Your task to perform on an android device: change the clock display to analog Image 0: 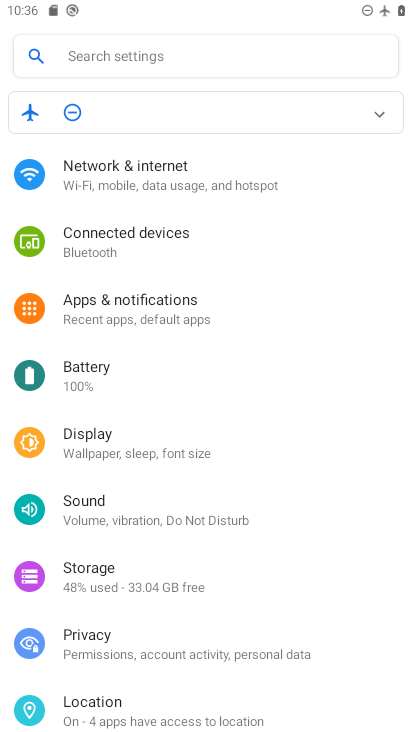
Step 0: press home button
Your task to perform on an android device: change the clock display to analog Image 1: 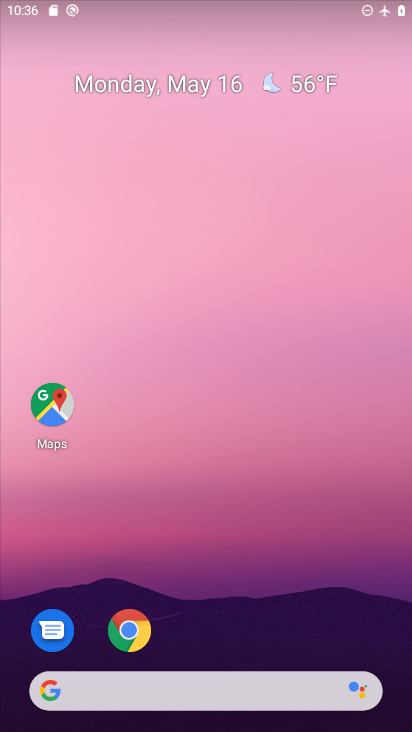
Step 1: drag from (244, 579) to (228, 85)
Your task to perform on an android device: change the clock display to analog Image 2: 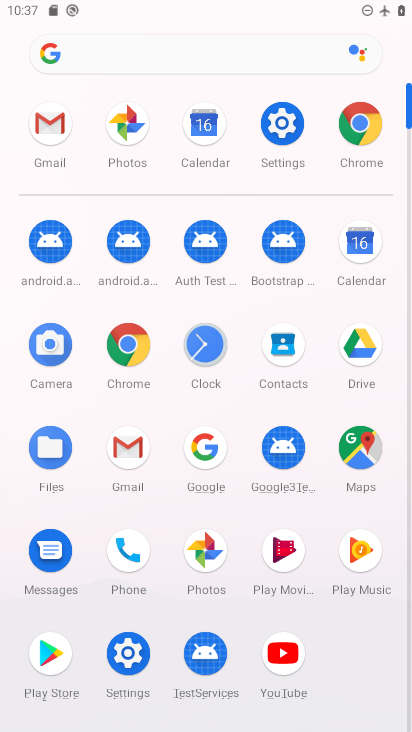
Step 2: click (207, 333)
Your task to perform on an android device: change the clock display to analog Image 3: 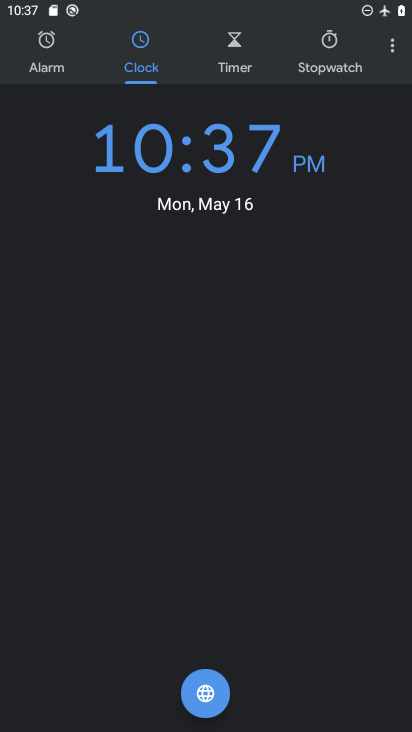
Step 3: click (385, 50)
Your task to perform on an android device: change the clock display to analog Image 4: 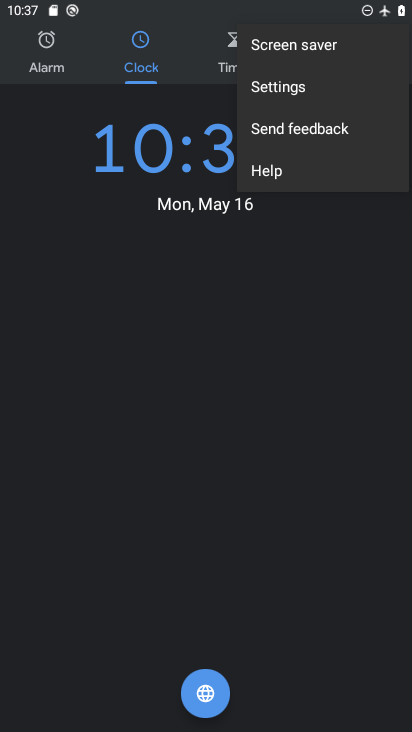
Step 4: click (340, 87)
Your task to perform on an android device: change the clock display to analog Image 5: 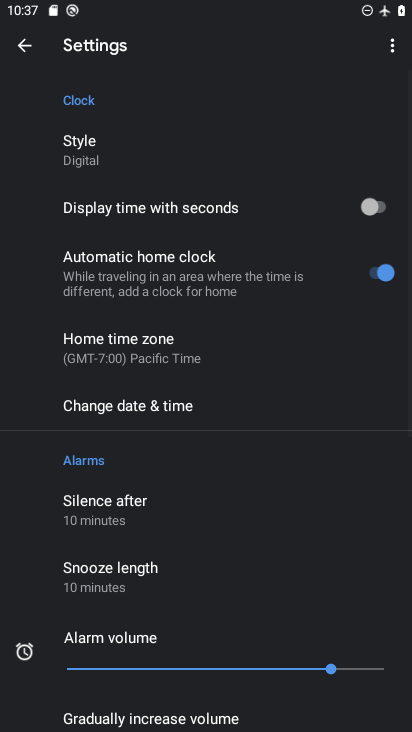
Step 5: click (117, 150)
Your task to perform on an android device: change the clock display to analog Image 6: 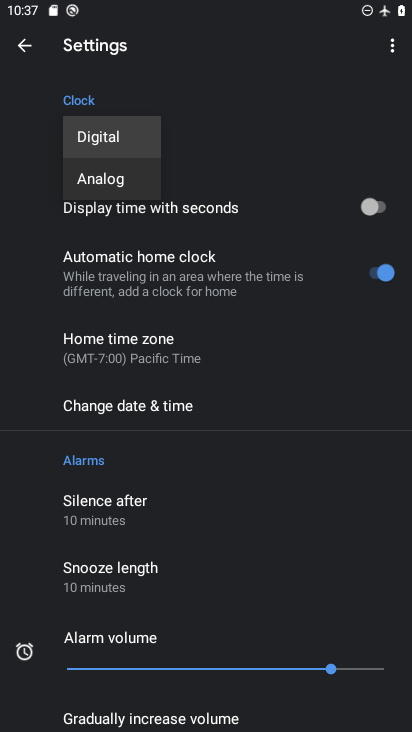
Step 6: click (112, 169)
Your task to perform on an android device: change the clock display to analog Image 7: 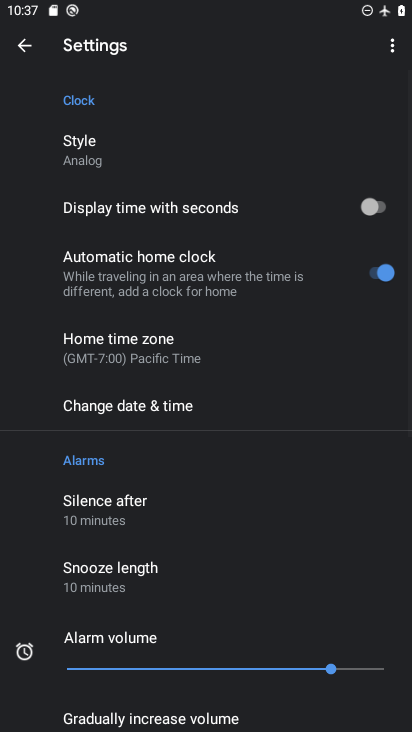
Step 7: click (32, 48)
Your task to perform on an android device: change the clock display to analog Image 8: 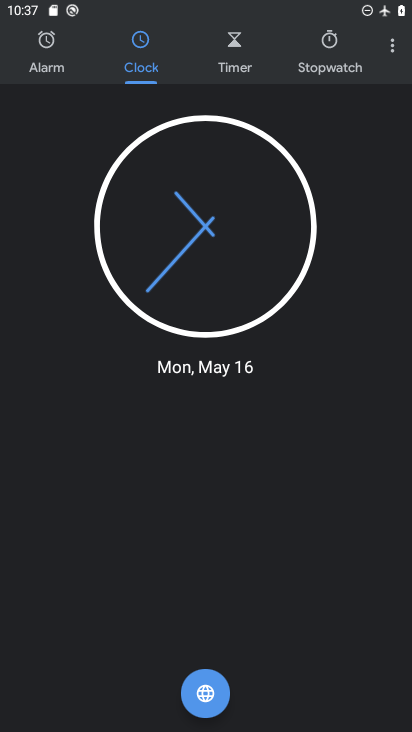
Step 8: task complete